Your task to perform on an android device: Open sound settings Image 0: 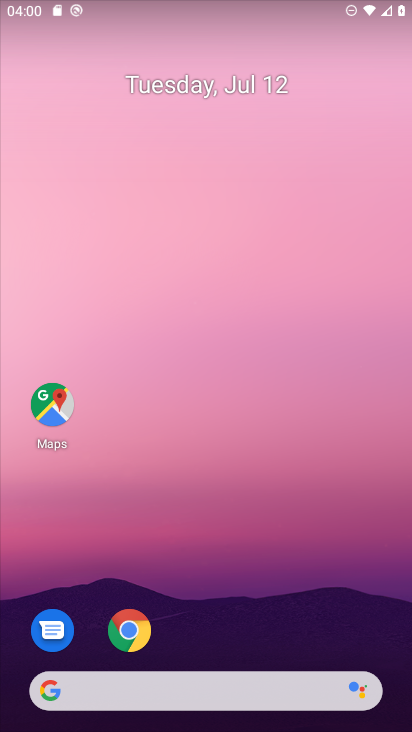
Step 0: drag from (394, 670) to (359, 140)
Your task to perform on an android device: Open sound settings Image 1: 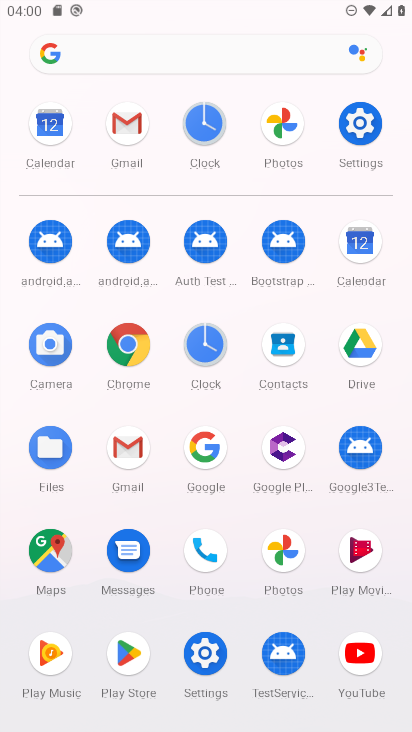
Step 1: click (204, 654)
Your task to perform on an android device: Open sound settings Image 2: 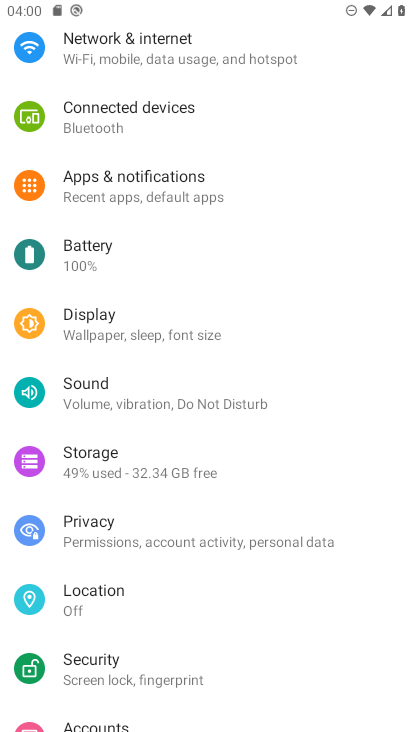
Step 2: click (84, 391)
Your task to perform on an android device: Open sound settings Image 3: 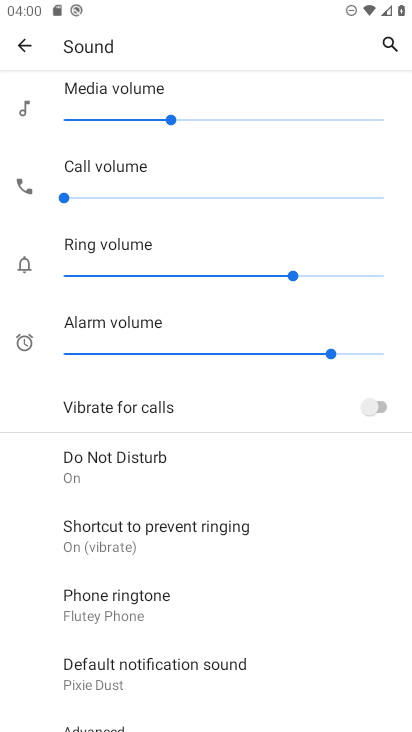
Step 3: task complete